Your task to perform on an android device: Go to battery settings Image 0: 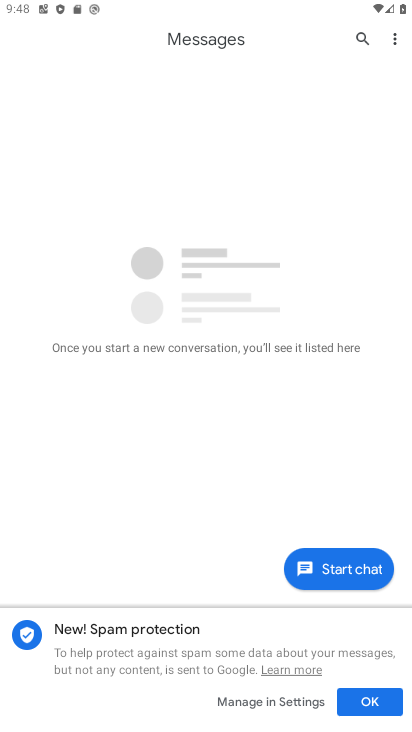
Step 0: press home button
Your task to perform on an android device: Go to battery settings Image 1: 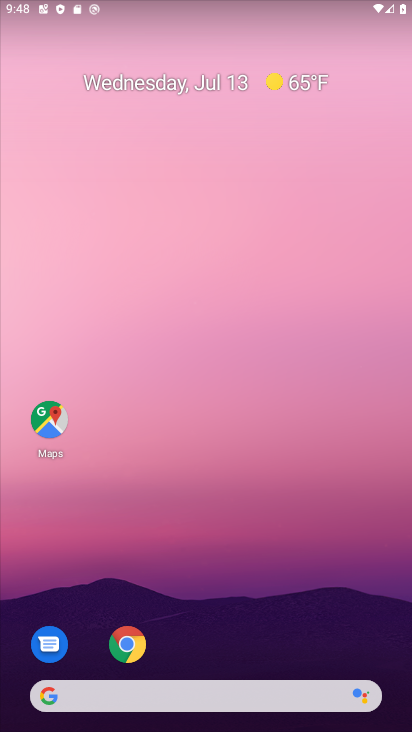
Step 1: drag from (256, 668) to (262, 154)
Your task to perform on an android device: Go to battery settings Image 2: 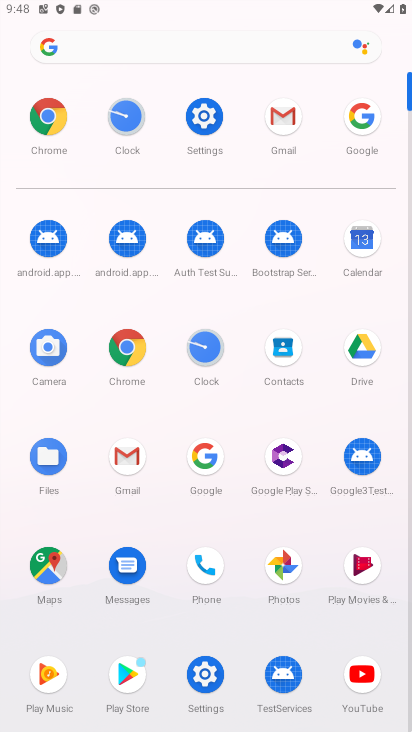
Step 2: click (193, 106)
Your task to perform on an android device: Go to battery settings Image 3: 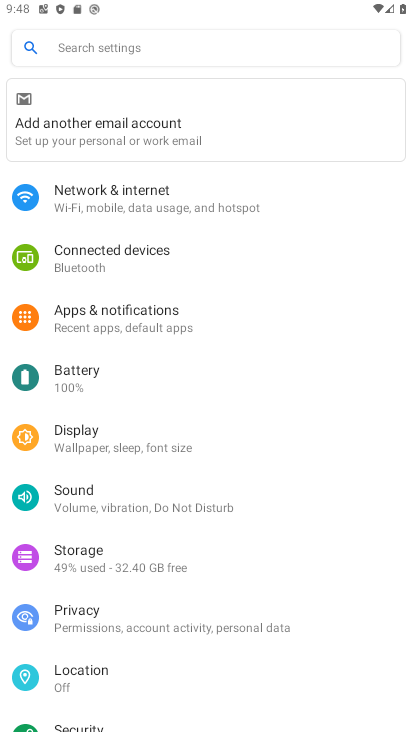
Step 3: click (81, 390)
Your task to perform on an android device: Go to battery settings Image 4: 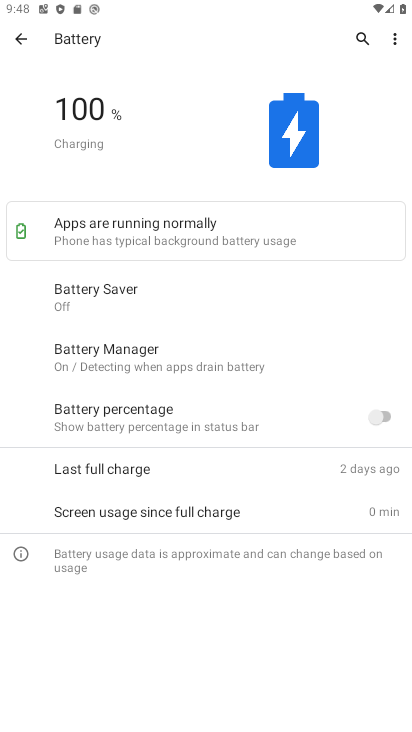
Step 4: task complete